Your task to perform on an android device: allow notifications from all sites in the chrome app Image 0: 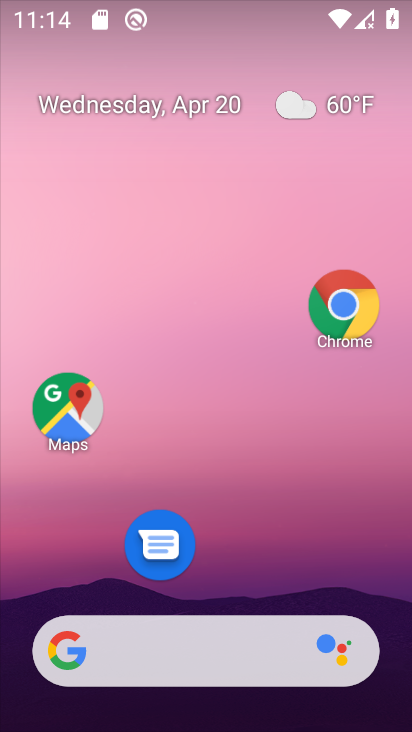
Step 0: click (341, 316)
Your task to perform on an android device: allow notifications from all sites in the chrome app Image 1: 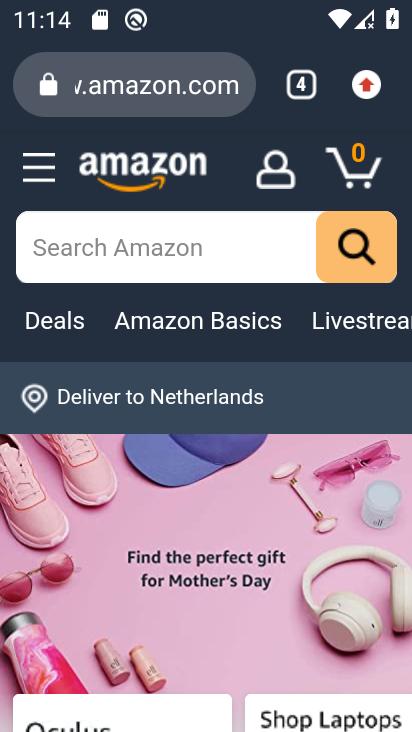
Step 1: click (365, 91)
Your task to perform on an android device: allow notifications from all sites in the chrome app Image 2: 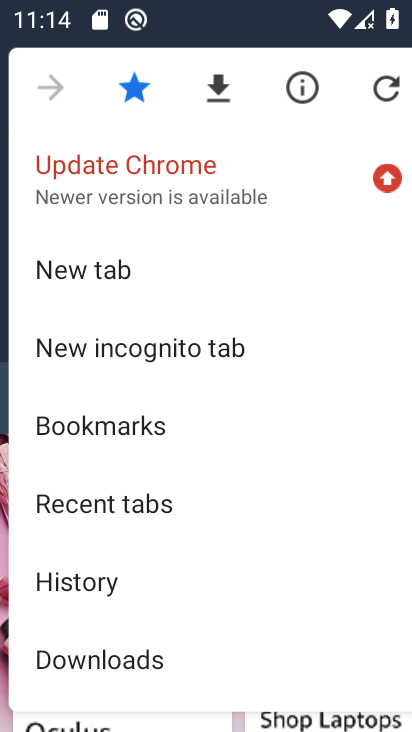
Step 2: drag from (203, 584) to (233, 295)
Your task to perform on an android device: allow notifications from all sites in the chrome app Image 3: 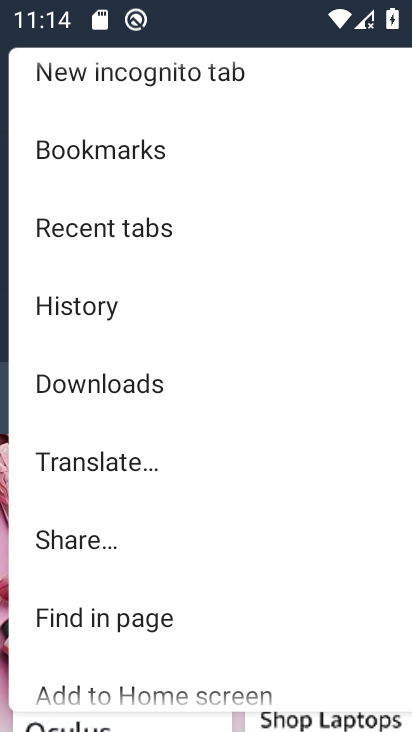
Step 3: drag from (183, 587) to (212, 343)
Your task to perform on an android device: allow notifications from all sites in the chrome app Image 4: 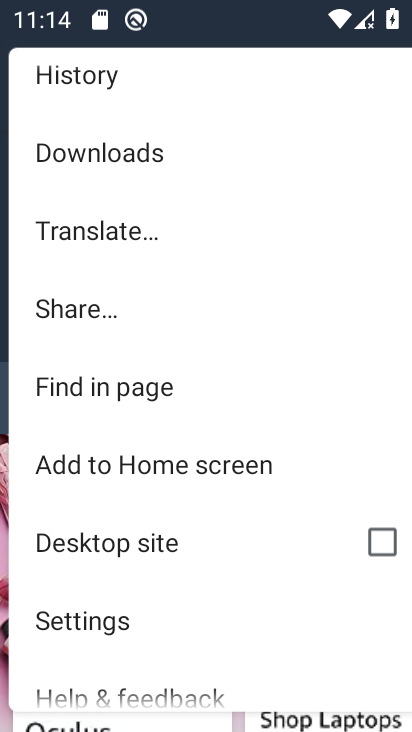
Step 4: click (167, 622)
Your task to perform on an android device: allow notifications from all sites in the chrome app Image 5: 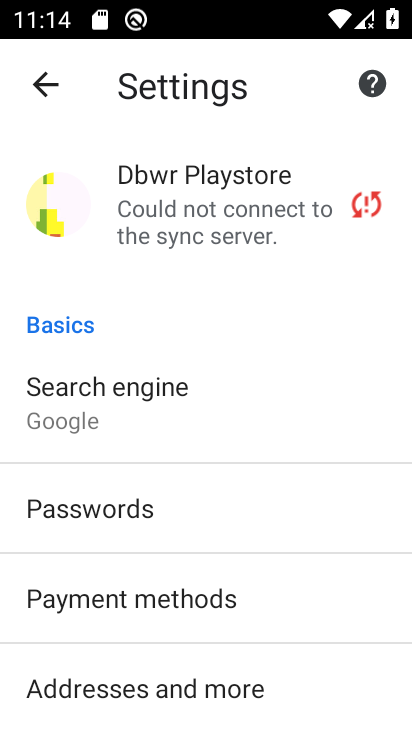
Step 5: drag from (185, 636) to (264, 268)
Your task to perform on an android device: allow notifications from all sites in the chrome app Image 6: 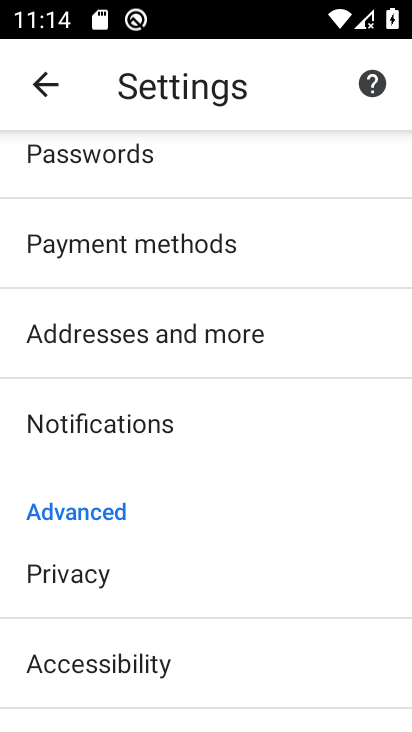
Step 6: click (160, 429)
Your task to perform on an android device: allow notifications from all sites in the chrome app Image 7: 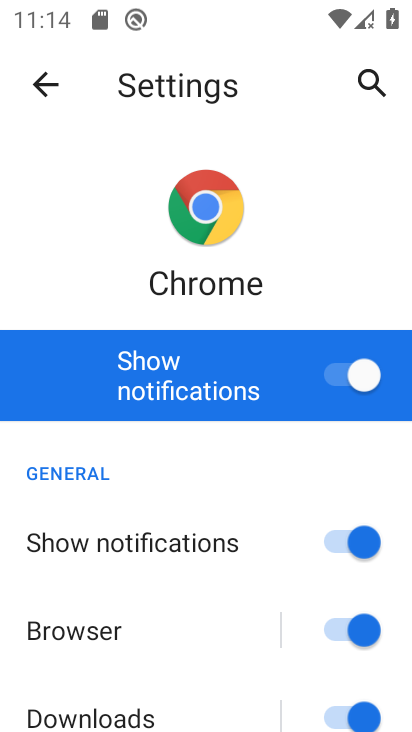
Step 7: task complete